Your task to perform on an android device: check data usage Image 0: 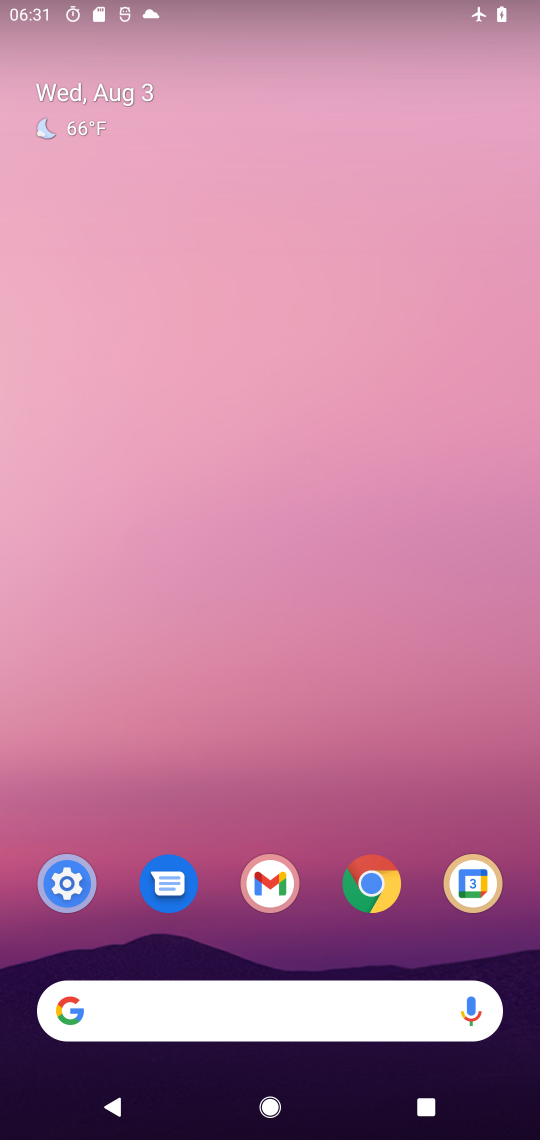
Step 0: drag from (266, 995) to (287, 316)
Your task to perform on an android device: check data usage Image 1: 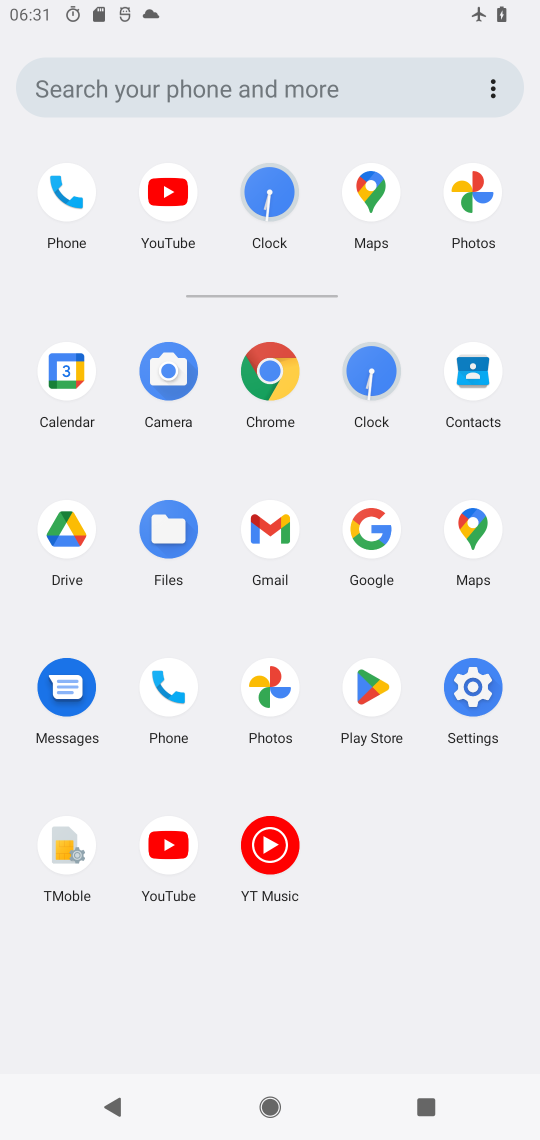
Step 1: click (476, 692)
Your task to perform on an android device: check data usage Image 2: 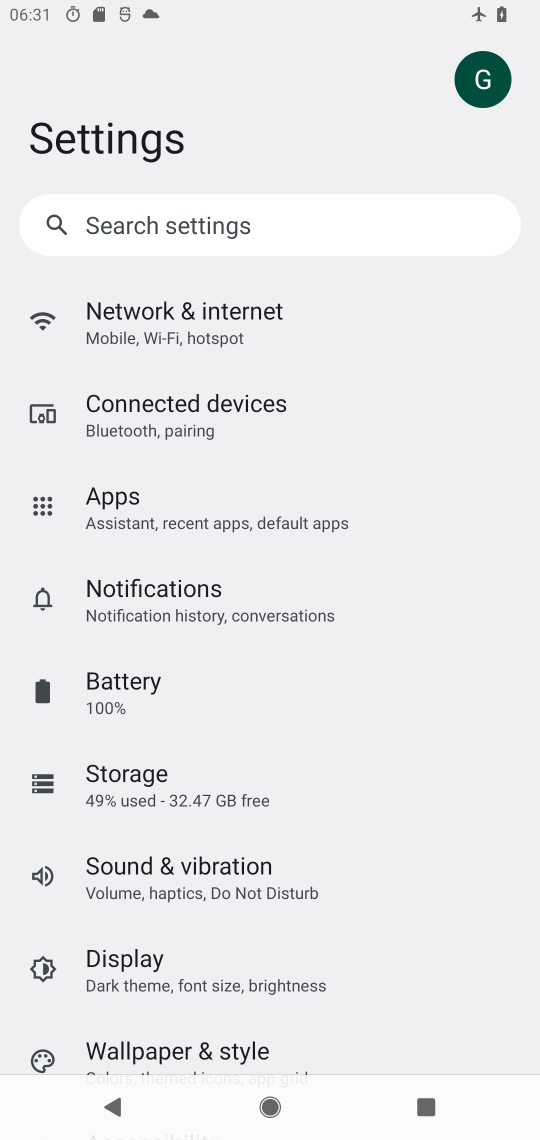
Step 2: click (163, 341)
Your task to perform on an android device: check data usage Image 3: 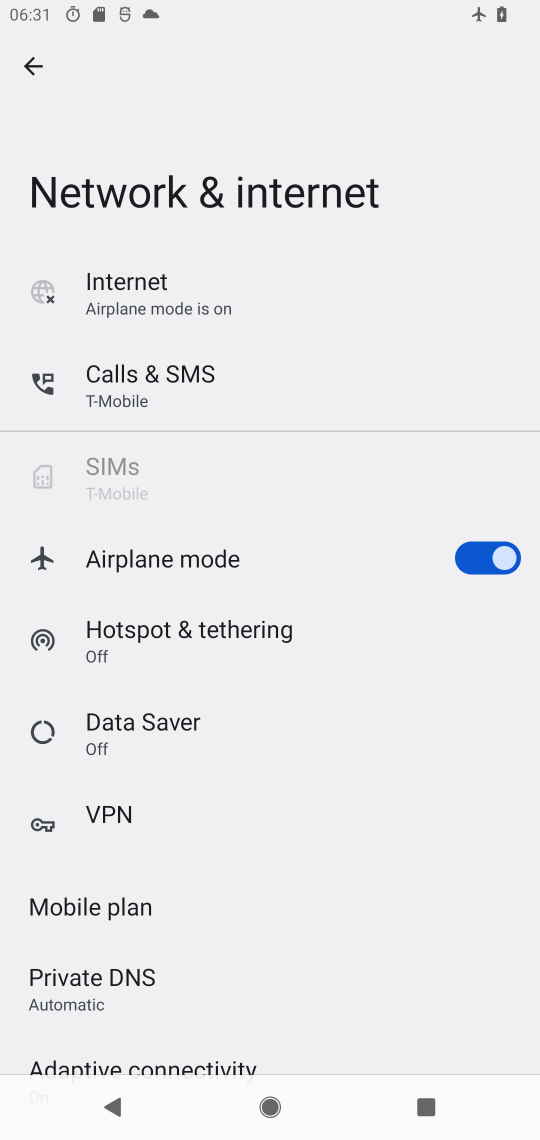
Step 3: drag from (189, 956) to (212, 407)
Your task to perform on an android device: check data usage Image 4: 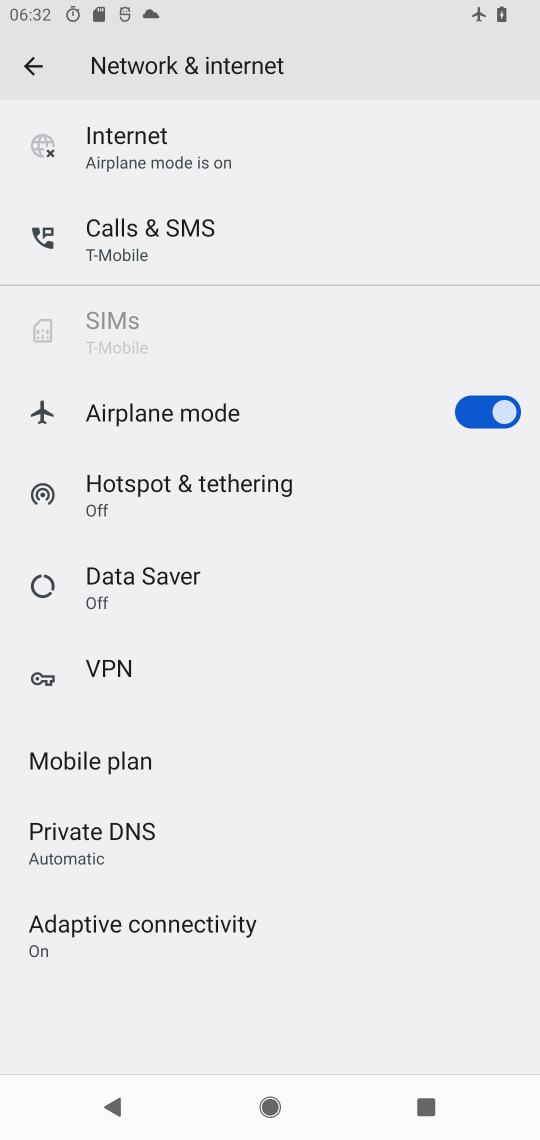
Step 4: click (143, 153)
Your task to perform on an android device: check data usage Image 5: 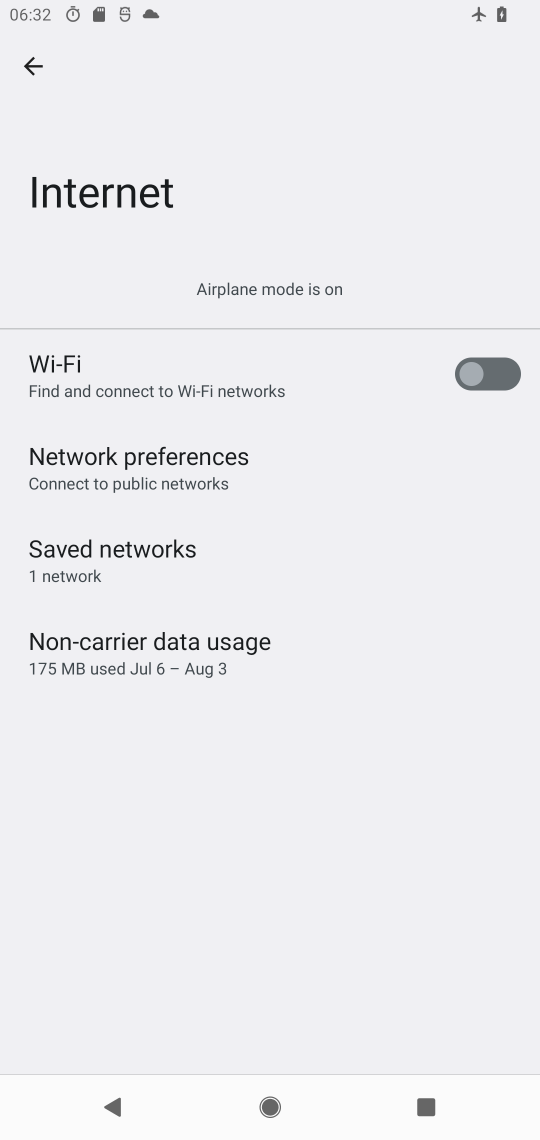
Step 5: click (175, 660)
Your task to perform on an android device: check data usage Image 6: 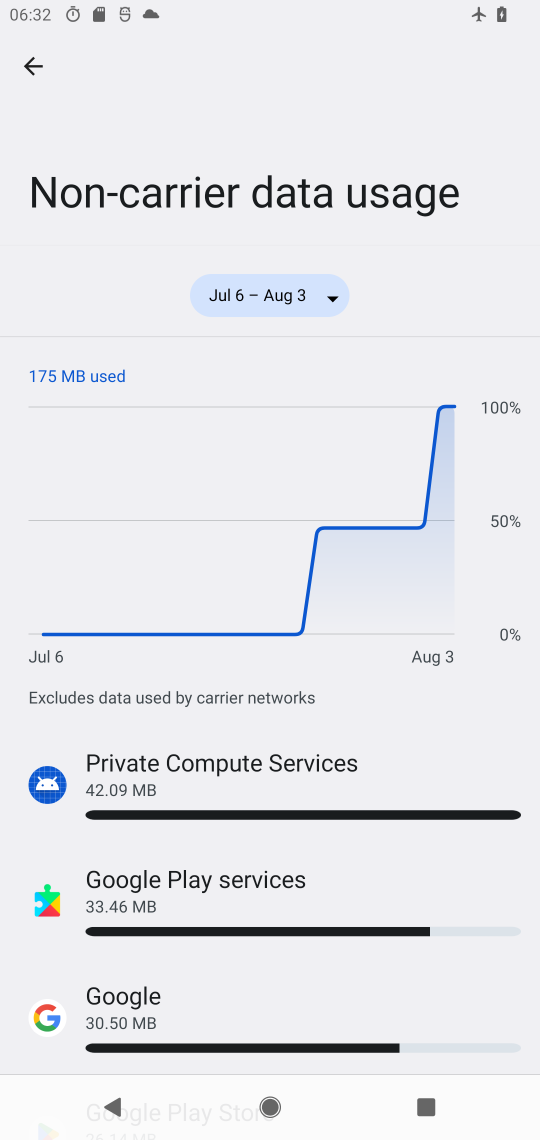
Step 6: task complete